Your task to perform on an android device: What's on the menu at Pizza Hut? Image 0: 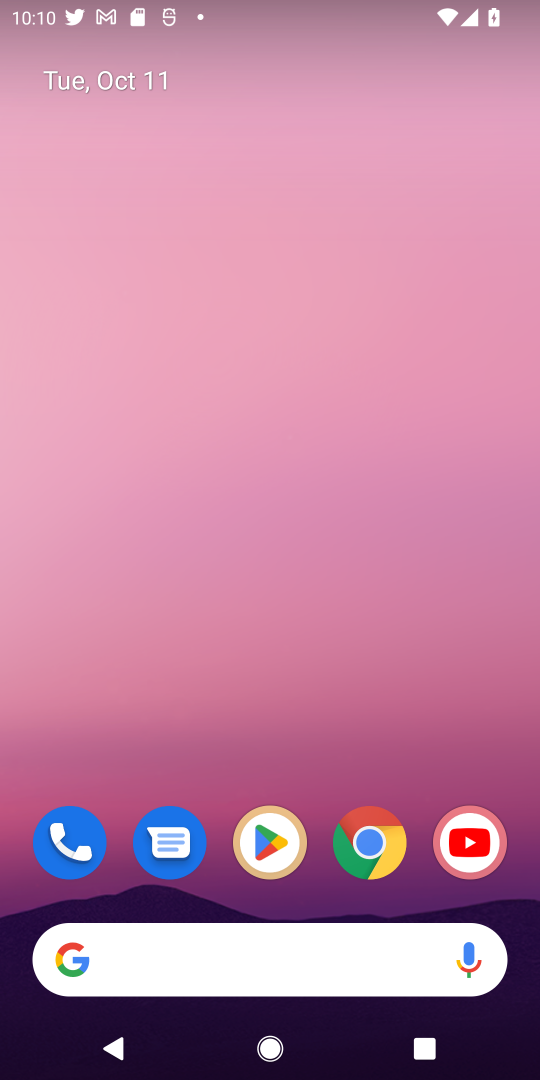
Step 0: click (381, 831)
Your task to perform on an android device: What's on the menu at Pizza Hut? Image 1: 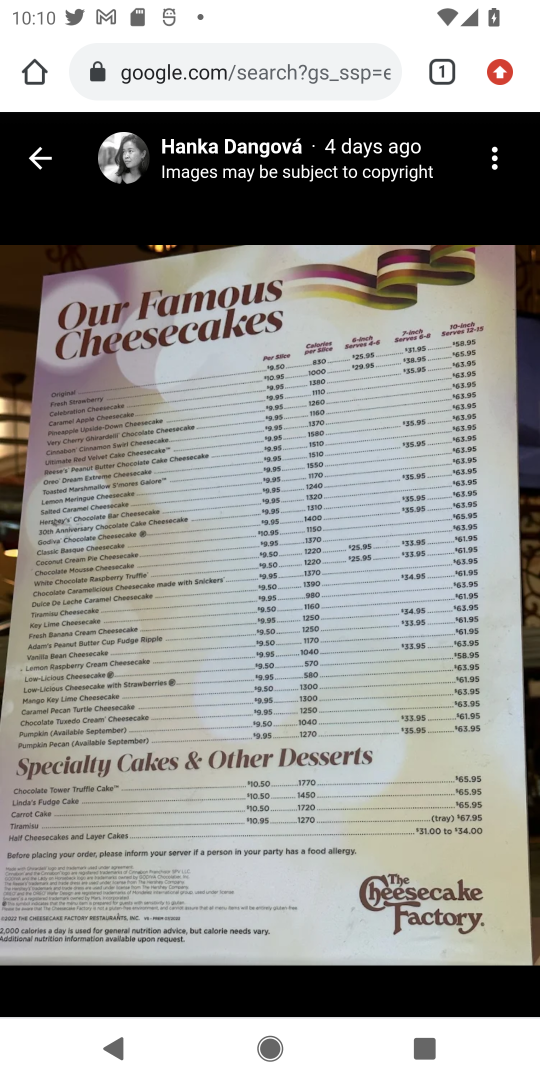
Step 1: click (255, 57)
Your task to perform on an android device: What's on the menu at Pizza Hut? Image 2: 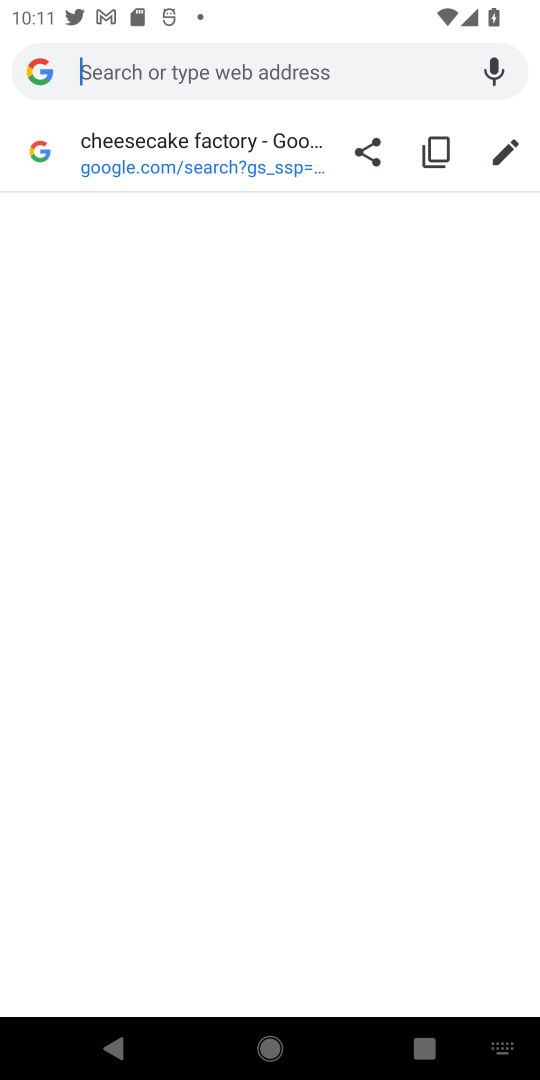
Step 2: type "pizza hut"
Your task to perform on an android device: What's on the menu at Pizza Hut? Image 3: 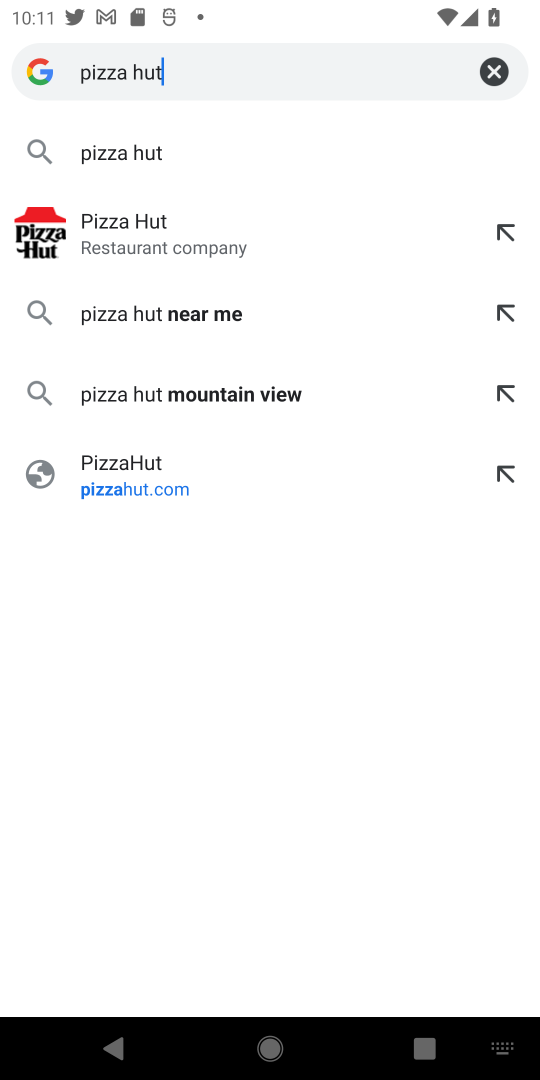
Step 3: click (111, 245)
Your task to perform on an android device: What's on the menu at Pizza Hut? Image 4: 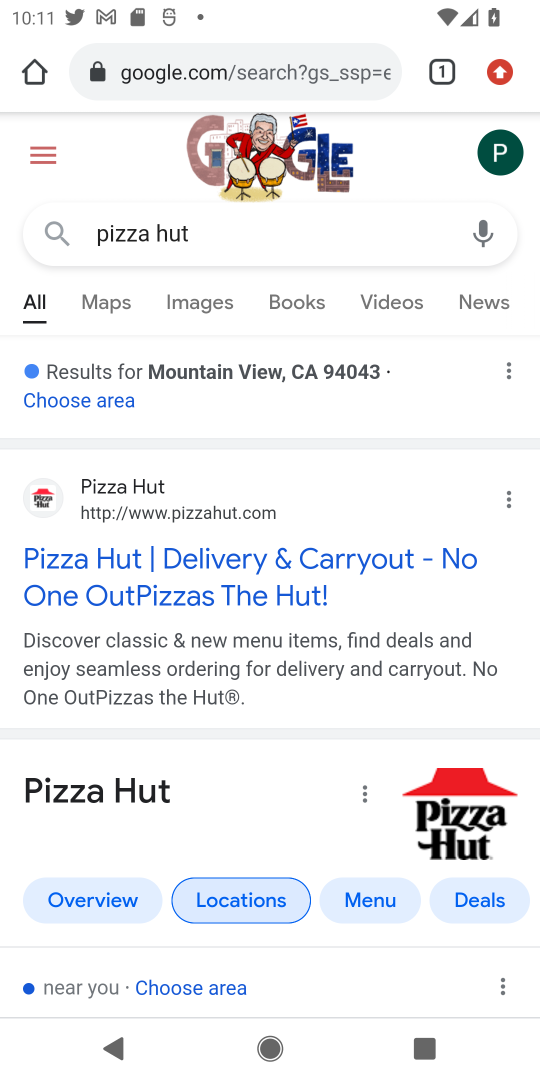
Step 4: click (71, 786)
Your task to perform on an android device: What's on the menu at Pizza Hut? Image 5: 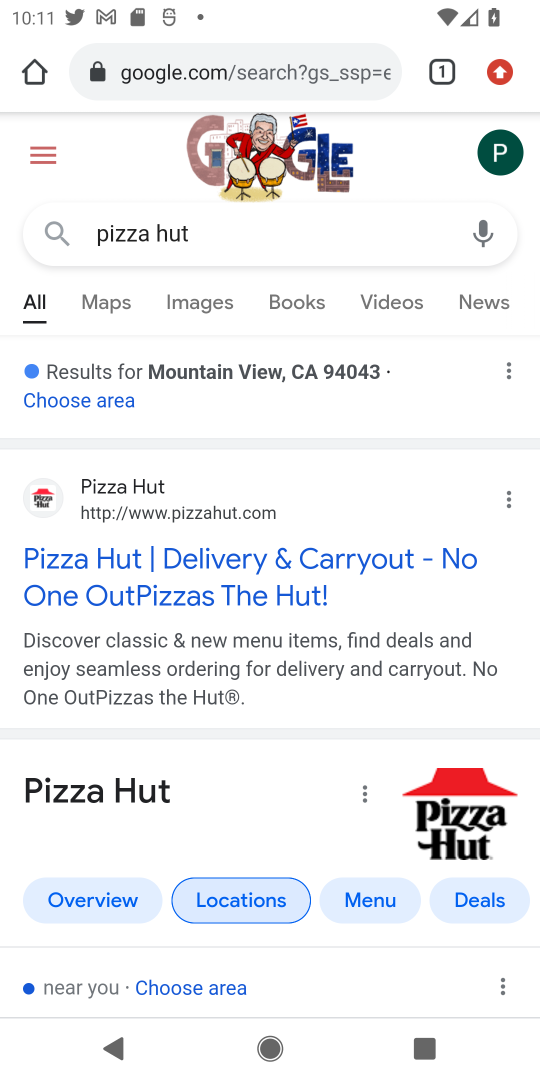
Step 5: drag from (222, 688) to (325, 324)
Your task to perform on an android device: What's on the menu at Pizza Hut? Image 6: 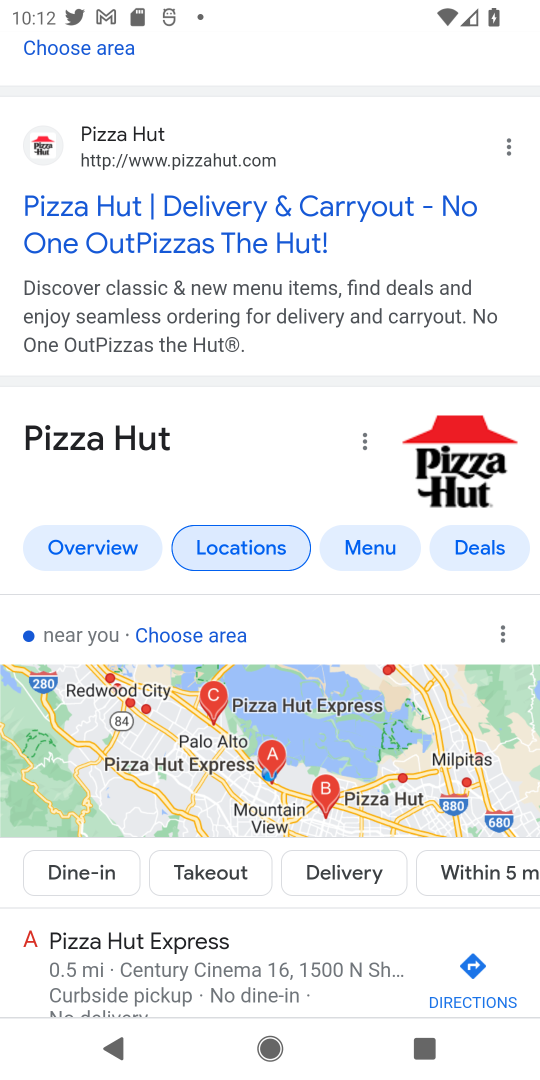
Step 6: click (360, 551)
Your task to perform on an android device: What's on the menu at Pizza Hut? Image 7: 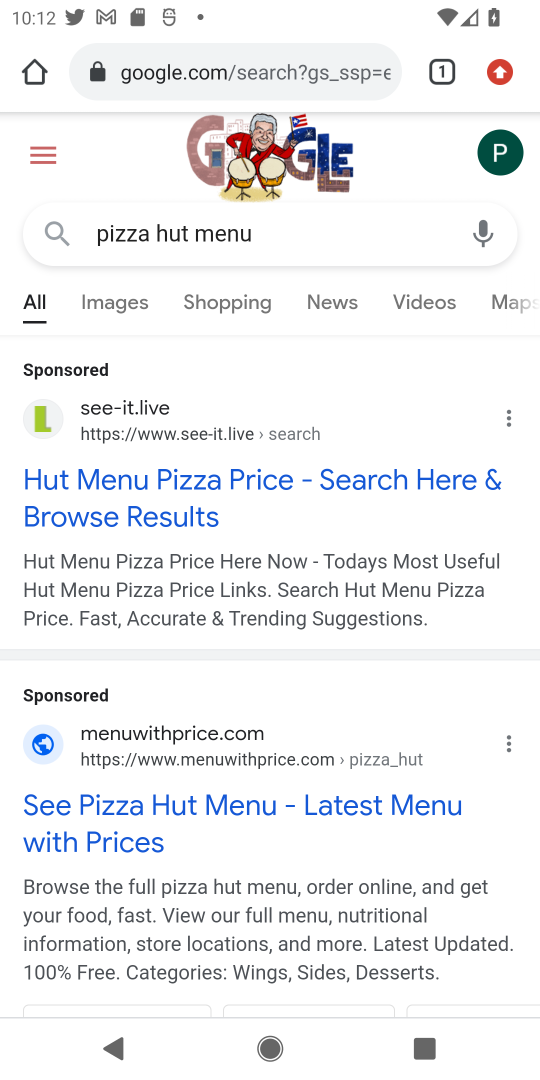
Step 7: drag from (197, 764) to (337, 271)
Your task to perform on an android device: What's on the menu at Pizza Hut? Image 8: 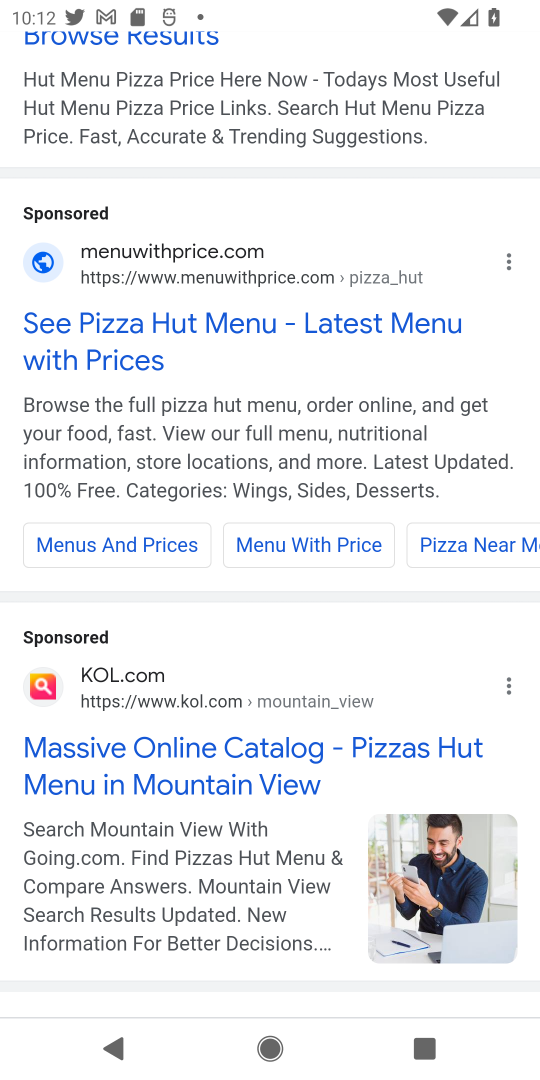
Step 8: drag from (92, 854) to (252, 255)
Your task to perform on an android device: What's on the menu at Pizza Hut? Image 9: 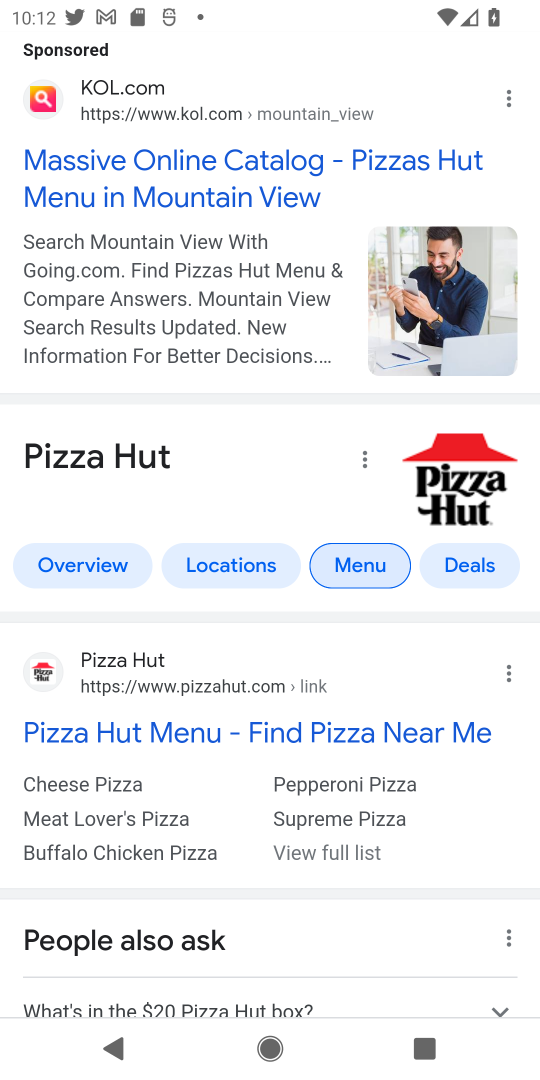
Step 9: click (120, 738)
Your task to perform on an android device: What's on the menu at Pizza Hut? Image 10: 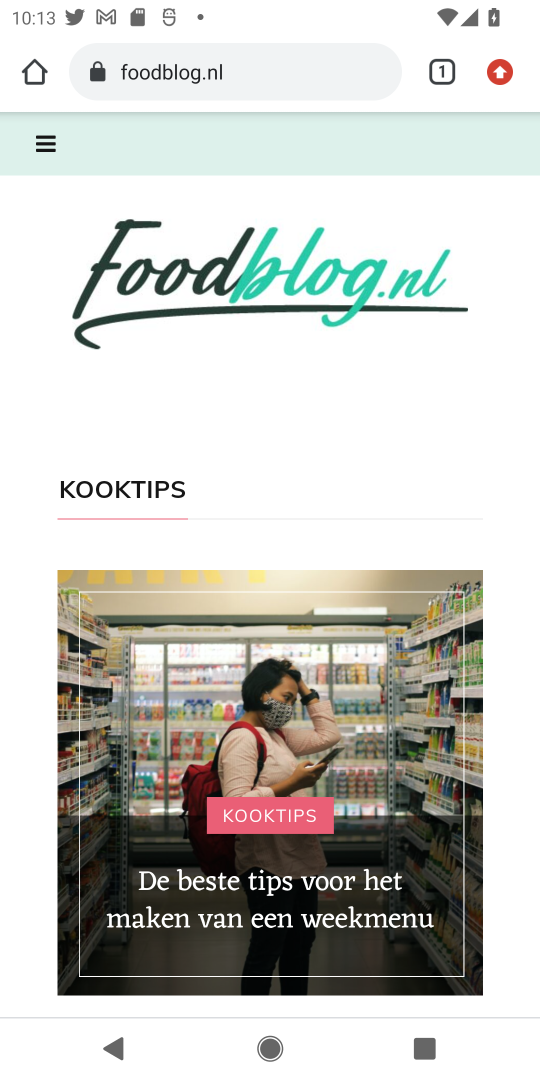
Step 10: type "pizza hut"
Your task to perform on an android device: What's on the menu at Pizza Hut? Image 11: 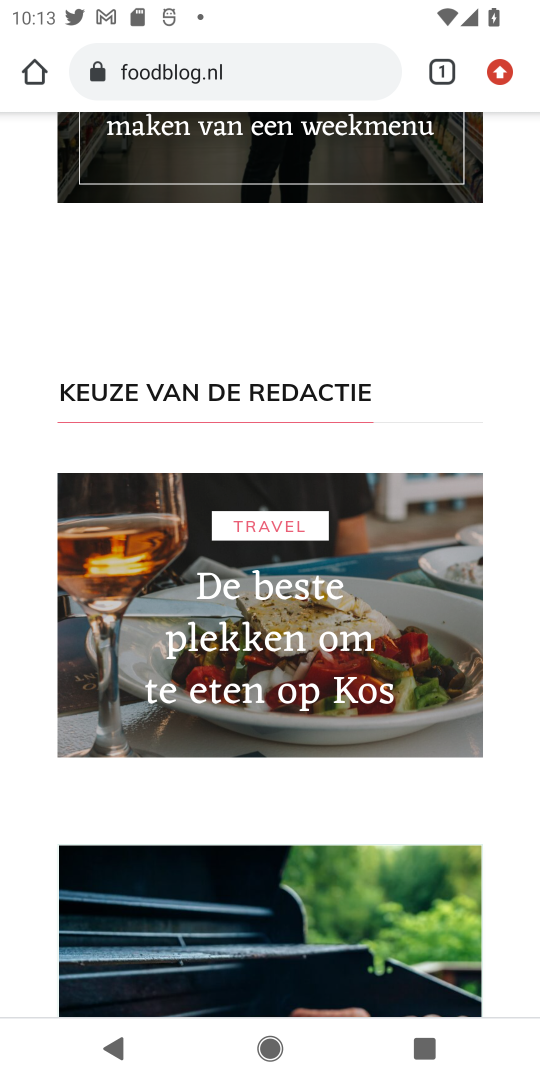
Step 11: type ""
Your task to perform on an android device: What's on the menu at Pizza Hut? Image 12: 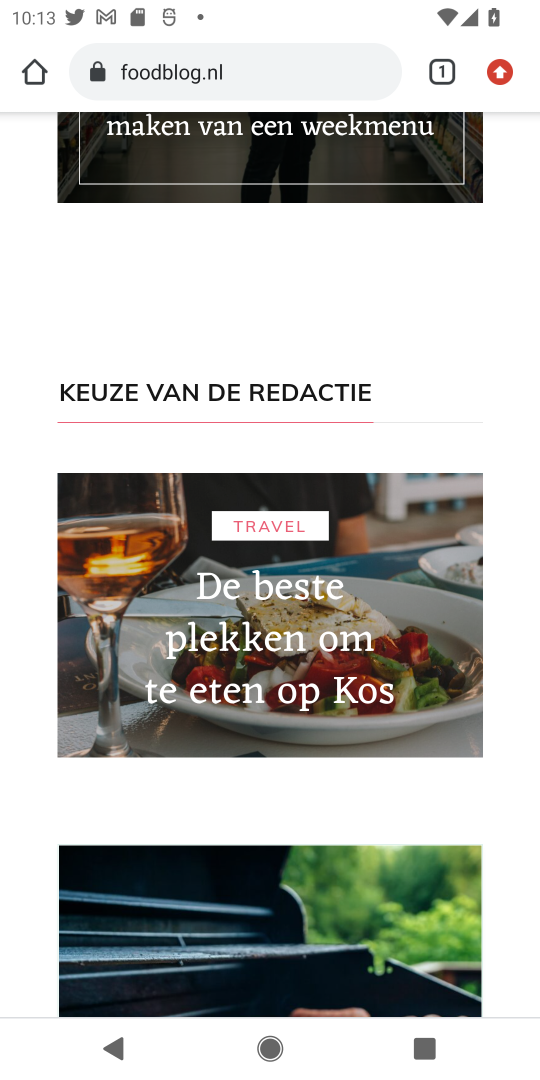
Step 12: click (243, 59)
Your task to perform on an android device: What's on the menu at Pizza Hut? Image 13: 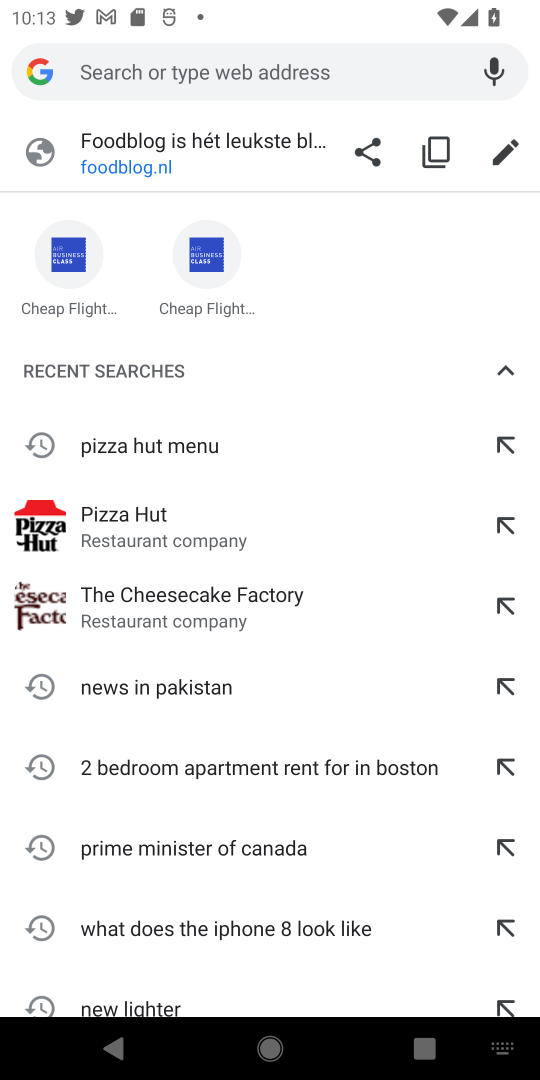
Step 13: click (106, 510)
Your task to perform on an android device: What's on the menu at Pizza Hut? Image 14: 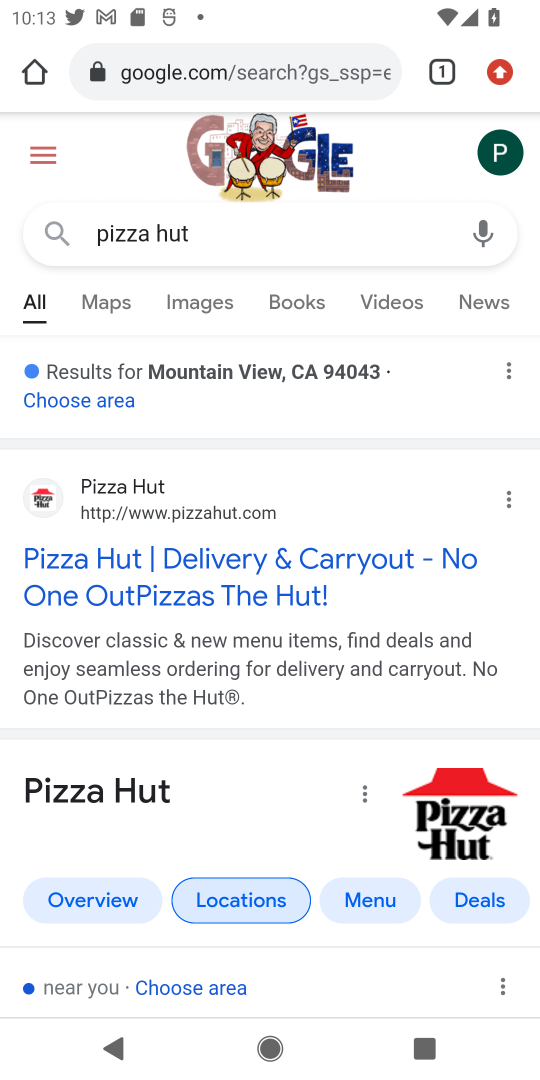
Step 14: click (371, 905)
Your task to perform on an android device: What's on the menu at Pizza Hut? Image 15: 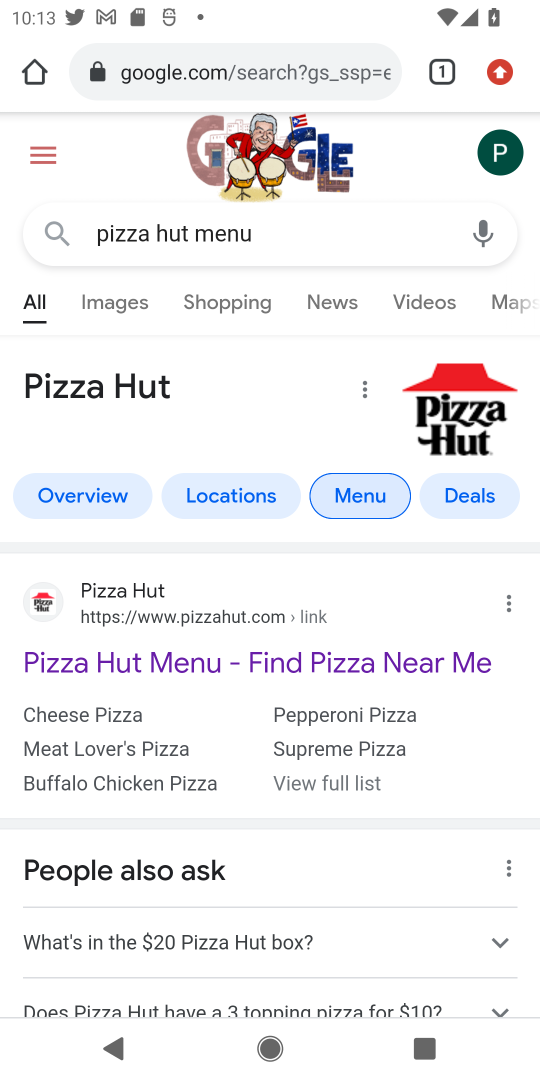
Step 15: click (166, 664)
Your task to perform on an android device: What's on the menu at Pizza Hut? Image 16: 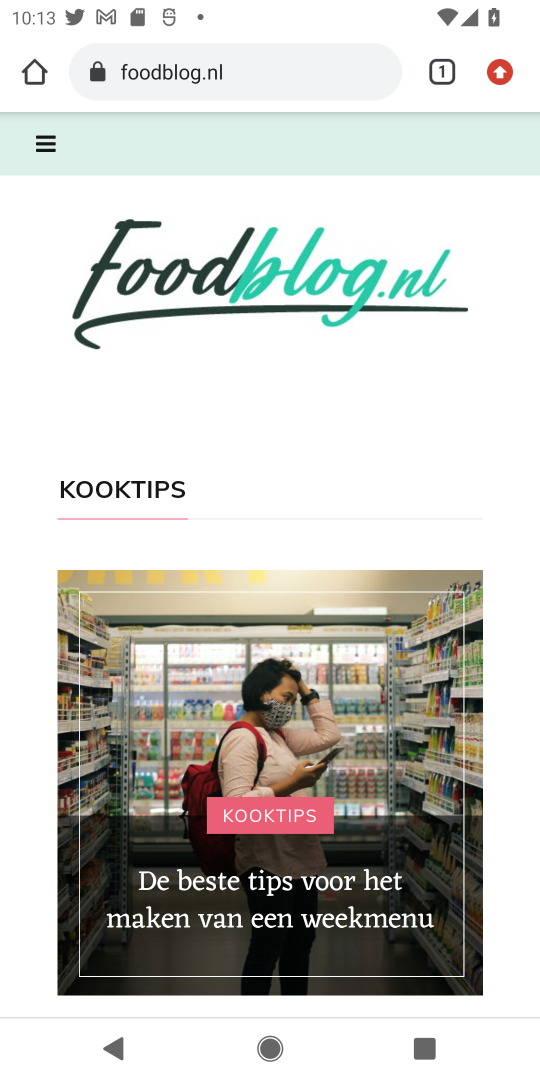
Step 16: drag from (389, 644) to (531, 153)
Your task to perform on an android device: What's on the menu at Pizza Hut? Image 17: 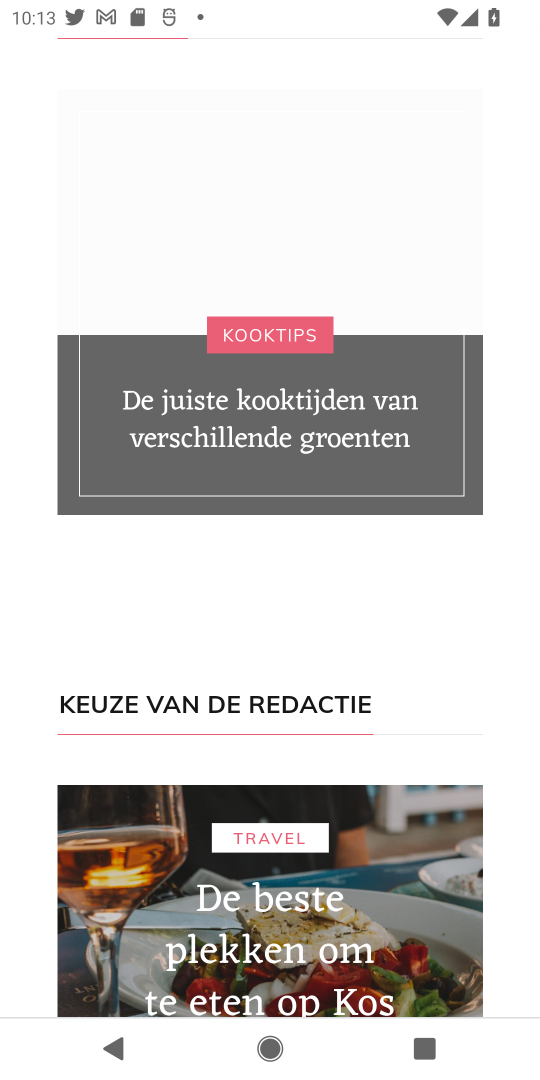
Step 17: drag from (226, 693) to (251, 369)
Your task to perform on an android device: What's on the menu at Pizza Hut? Image 18: 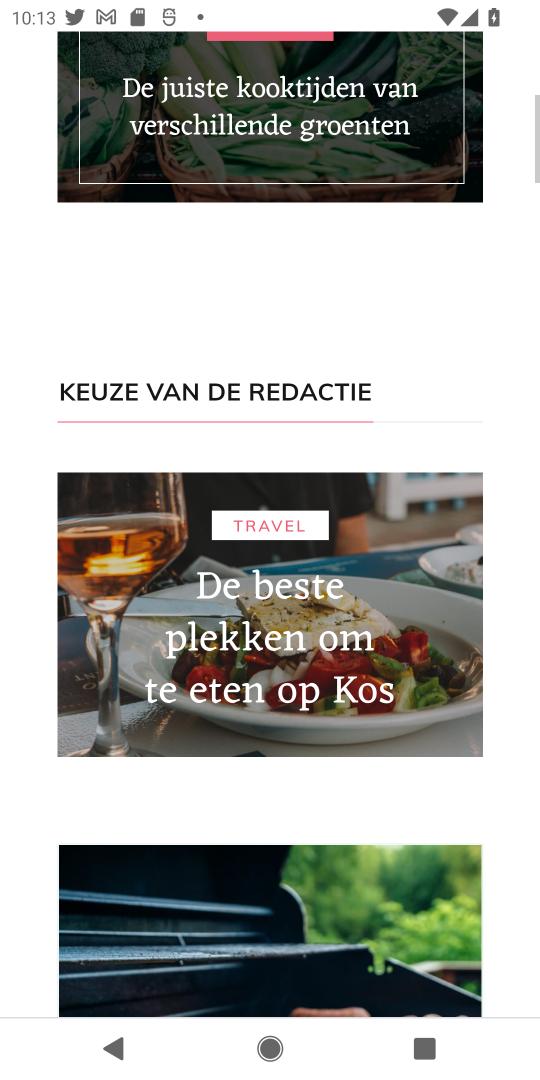
Step 18: drag from (99, 772) to (148, 435)
Your task to perform on an android device: What's on the menu at Pizza Hut? Image 19: 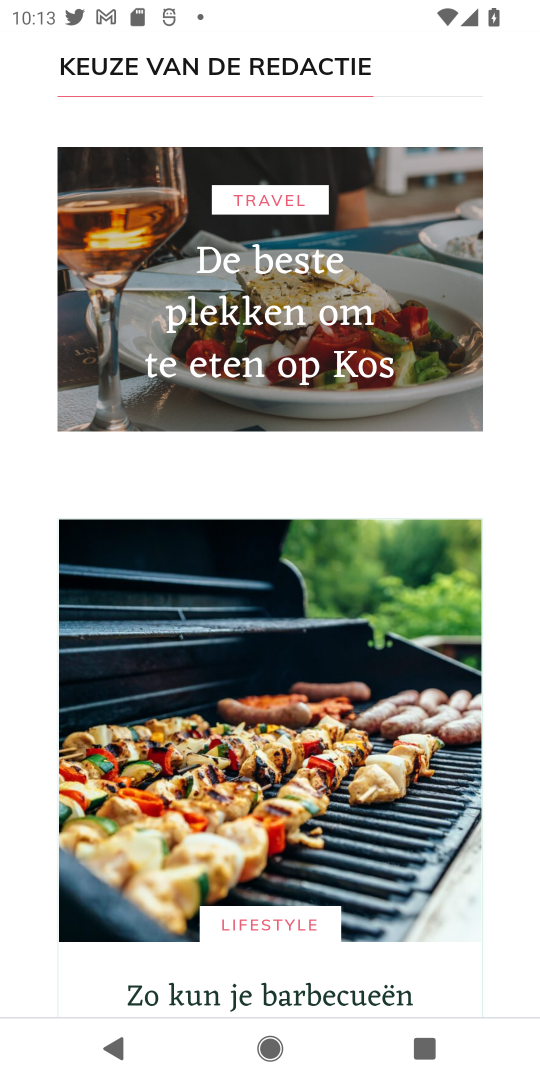
Step 19: drag from (152, 772) to (175, 297)
Your task to perform on an android device: What's on the menu at Pizza Hut? Image 20: 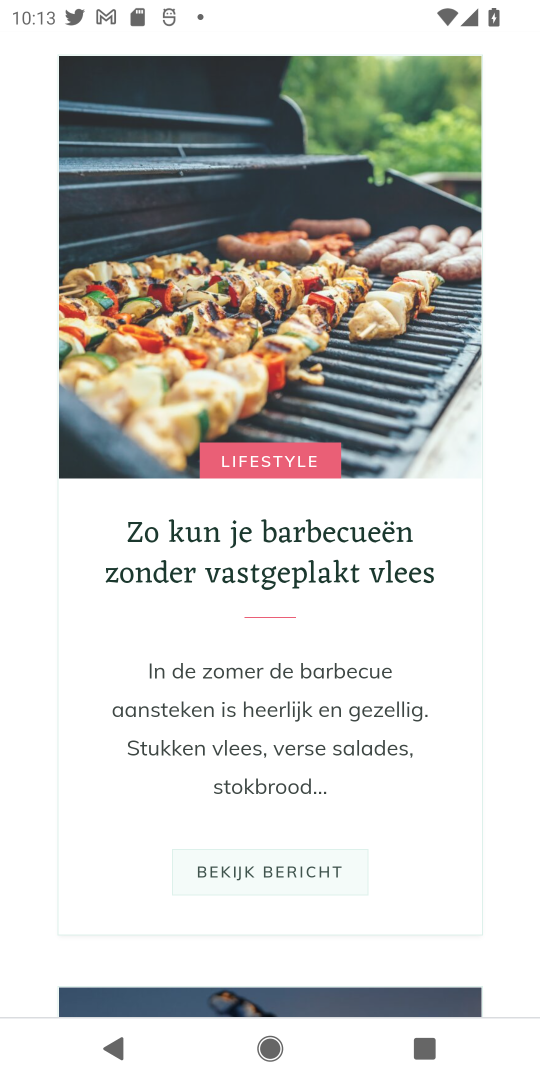
Step 20: drag from (214, 514) to (301, 145)
Your task to perform on an android device: What's on the menu at Pizza Hut? Image 21: 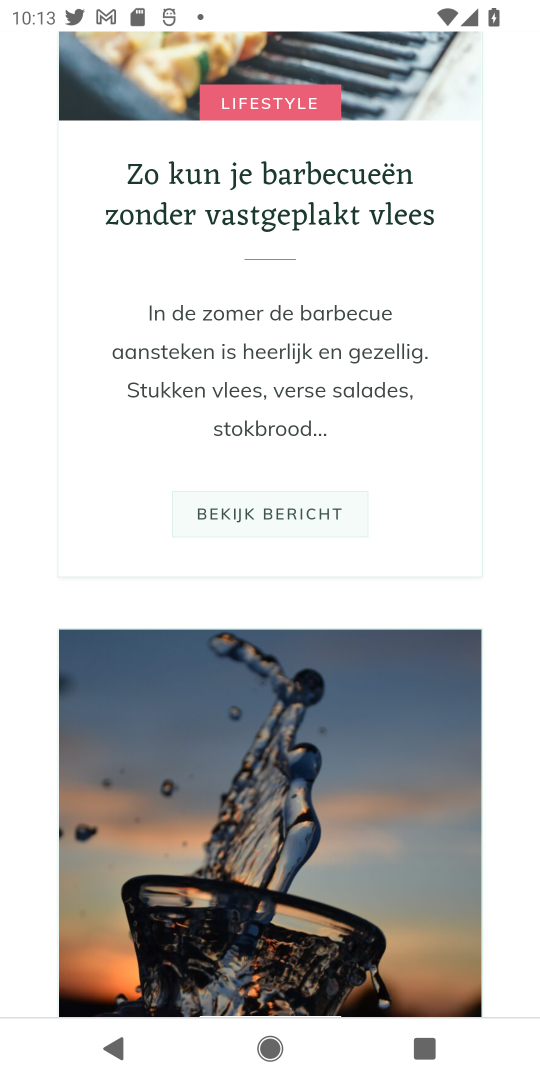
Step 21: drag from (273, 430) to (372, 120)
Your task to perform on an android device: What's on the menu at Pizza Hut? Image 22: 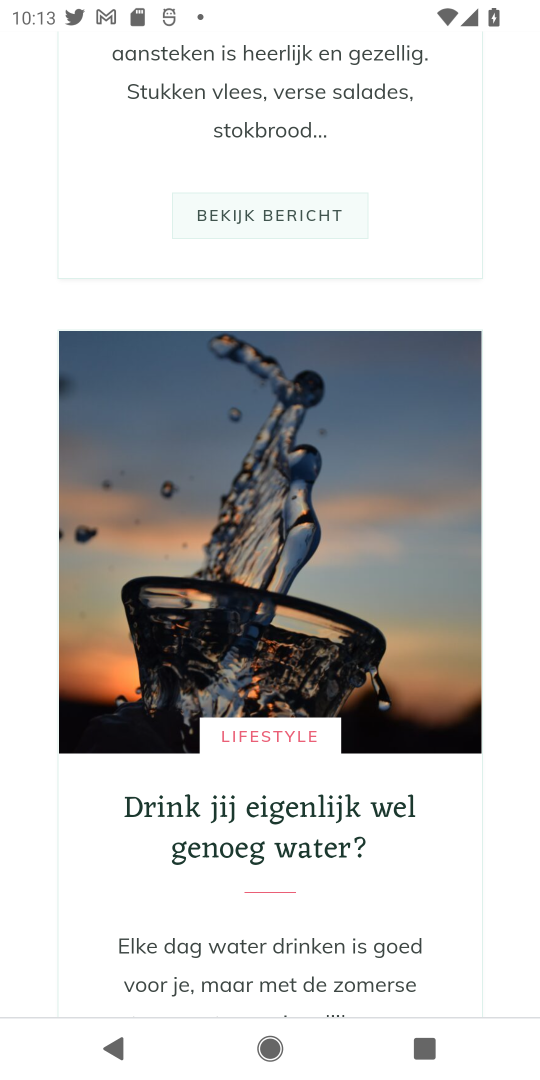
Step 22: drag from (300, 263) to (276, 931)
Your task to perform on an android device: What's on the menu at Pizza Hut? Image 23: 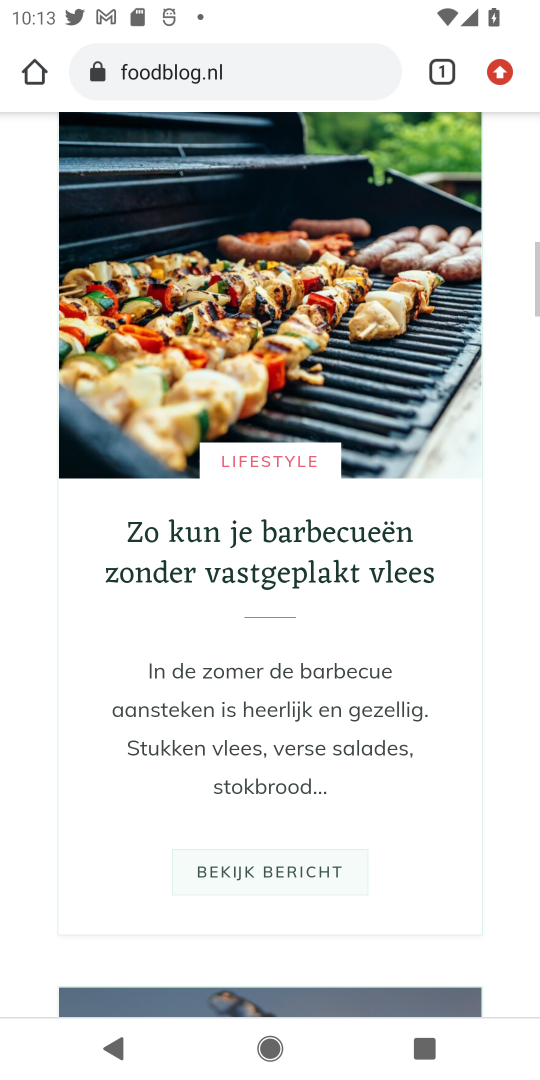
Step 23: drag from (364, 250) to (189, 892)
Your task to perform on an android device: What's on the menu at Pizza Hut? Image 24: 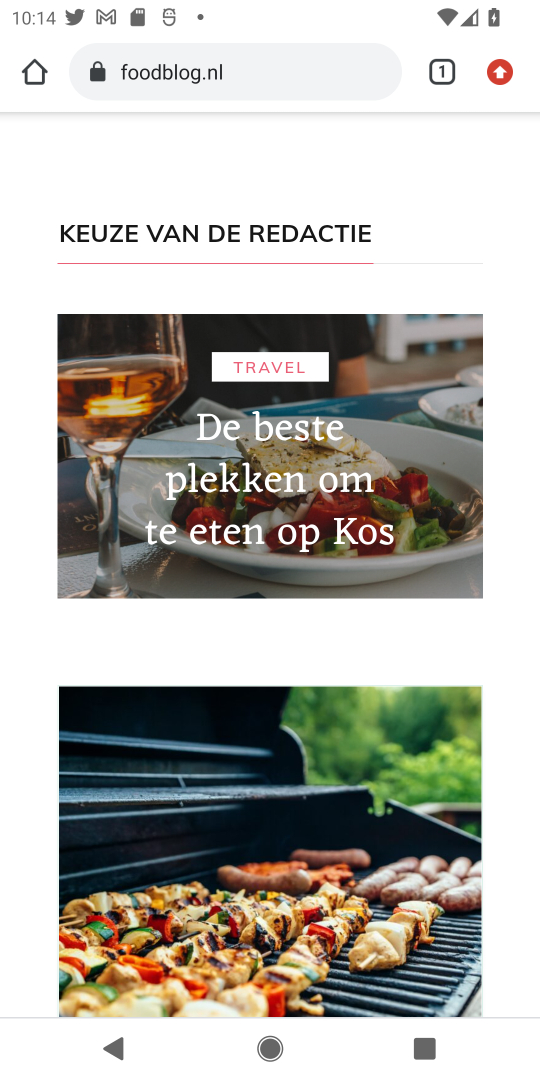
Step 24: drag from (462, 829) to (538, 298)
Your task to perform on an android device: What's on the menu at Pizza Hut? Image 25: 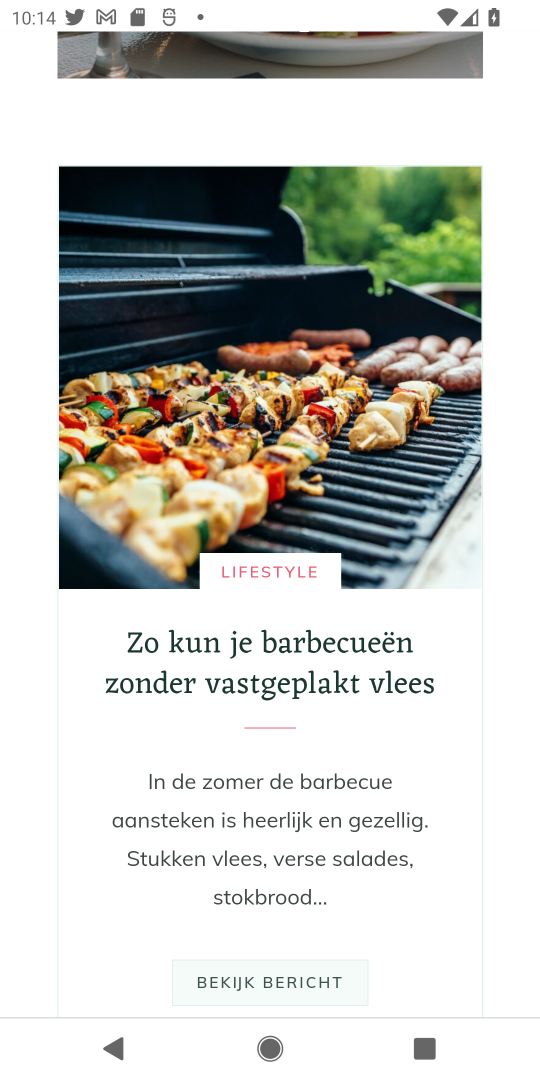
Step 25: drag from (290, 482) to (291, 1067)
Your task to perform on an android device: What's on the menu at Pizza Hut? Image 26: 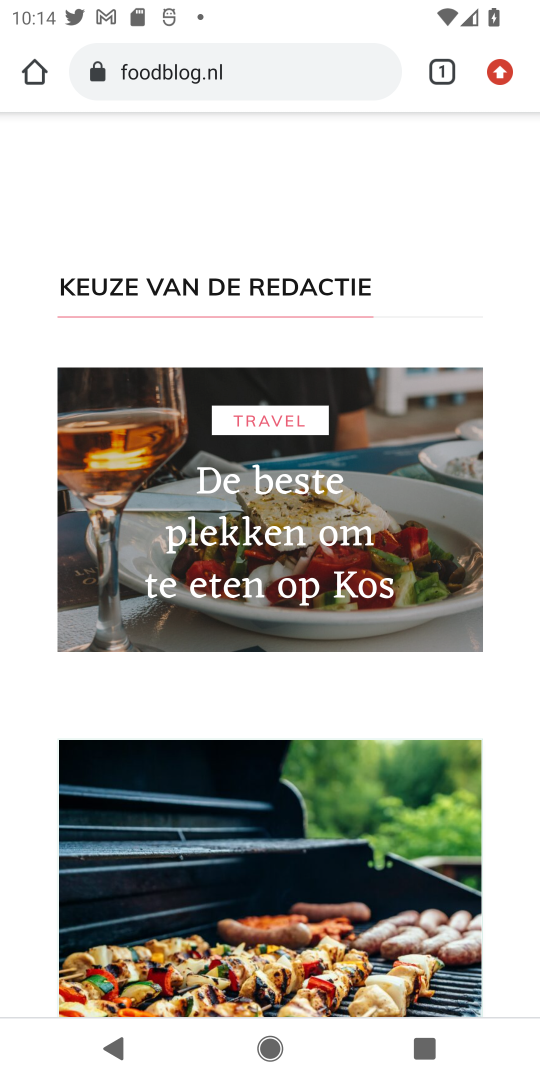
Step 26: click (258, 66)
Your task to perform on an android device: What's on the menu at Pizza Hut? Image 27: 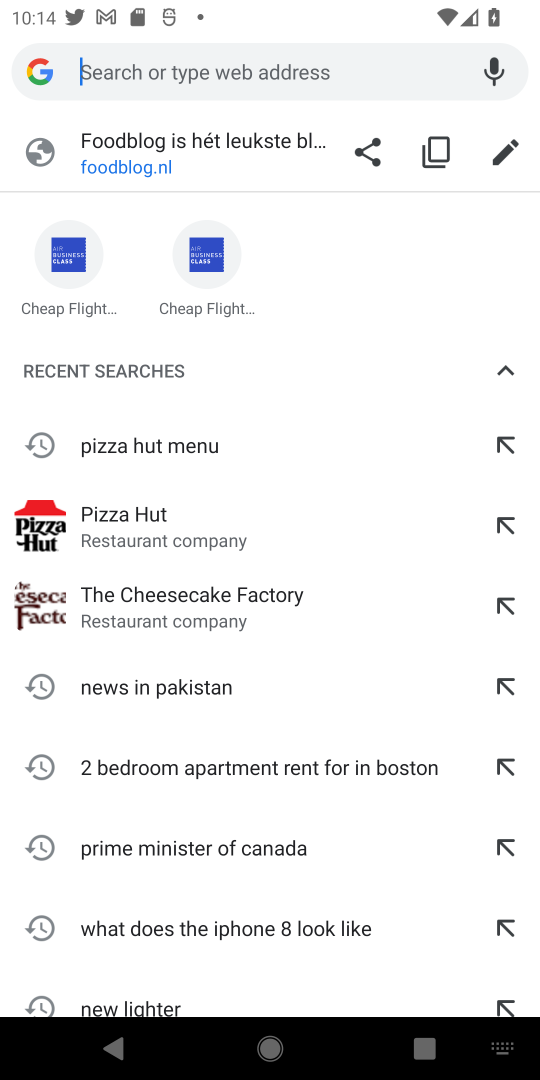
Step 27: click (108, 445)
Your task to perform on an android device: What's on the menu at Pizza Hut? Image 28: 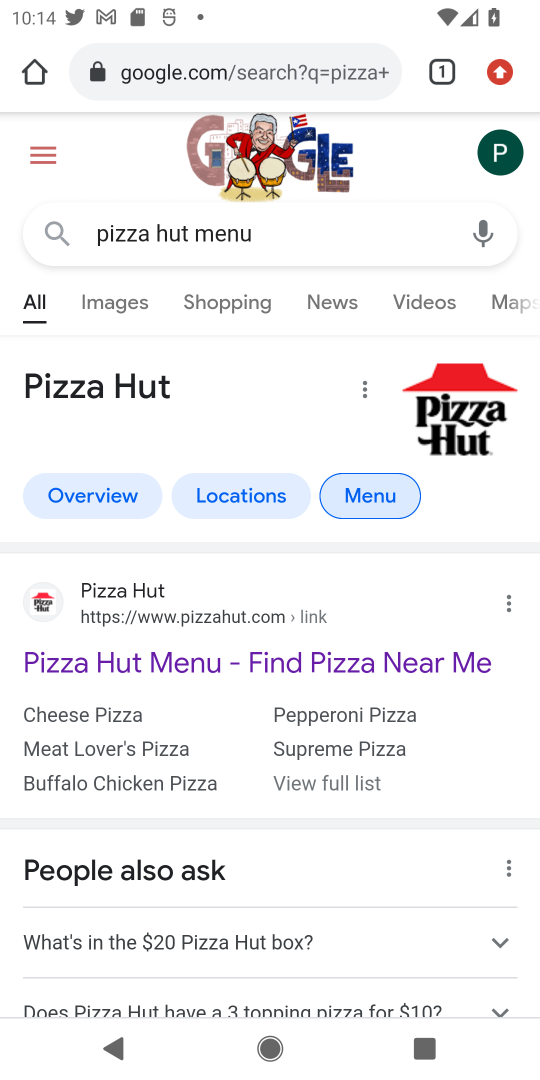
Step 28: click (111, 662)
Your task to perform on an android device: What's on the menu at Pizza Hut? Image 29: 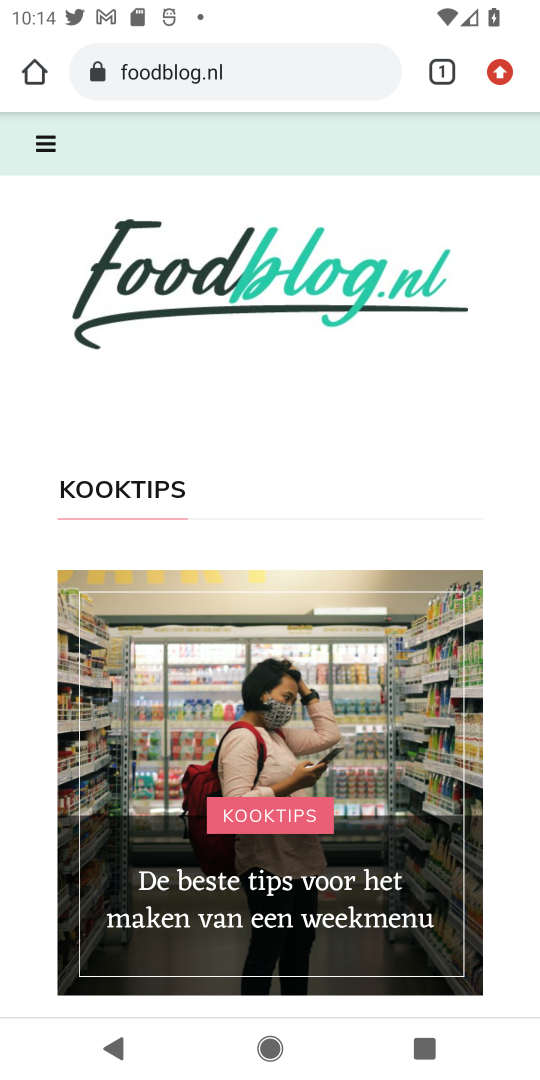
Step 29: drag from (240, 490) to (273, 373)
Your task to perform on an android device: What's on the menu at Pizza Hut? Image 30: 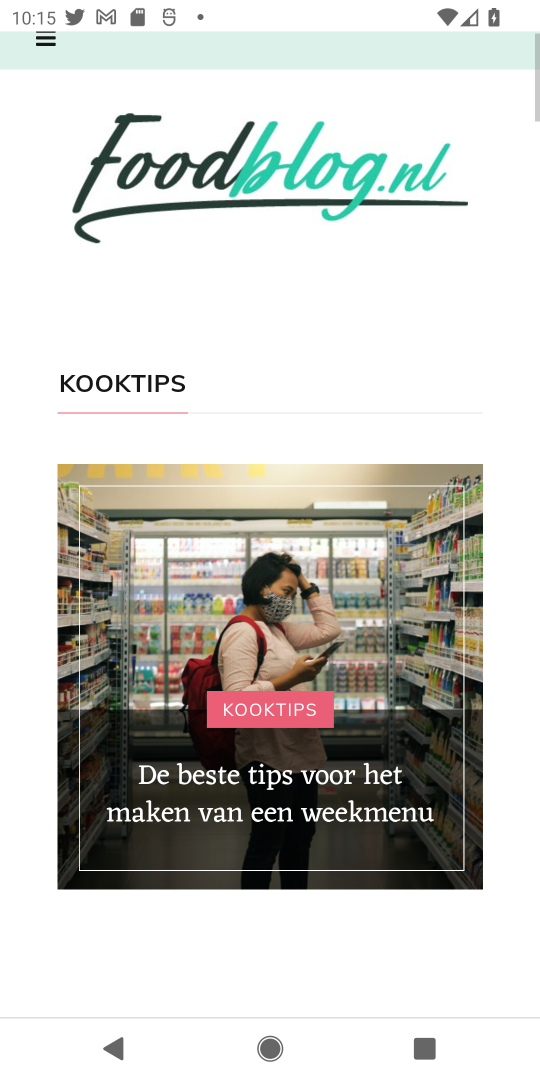
Step 30: drag from (214, 704) to (271, 392)
Your task to perform on an android device: What's on the menu at Pizza Hut? Image 31: 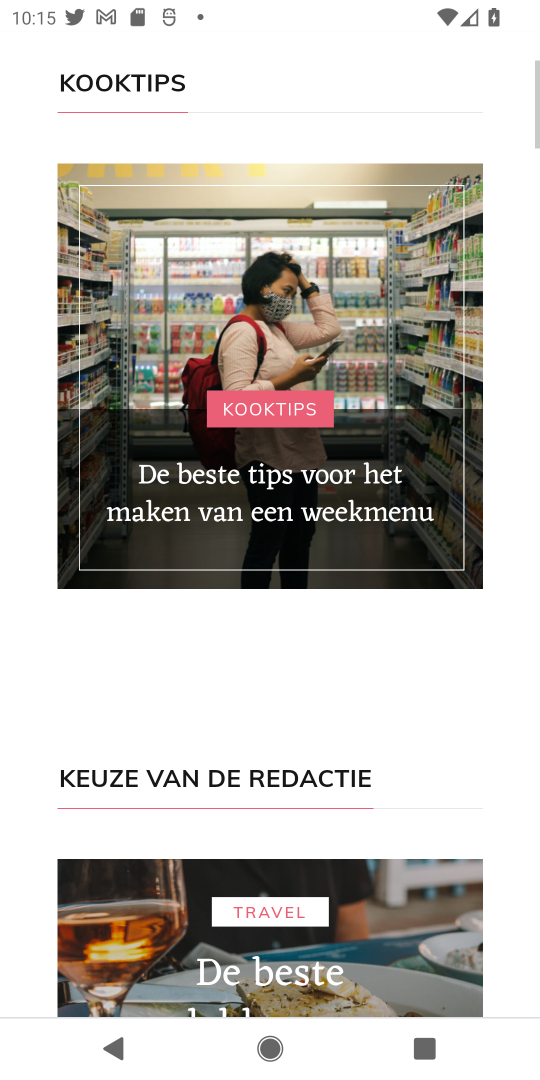
Step 31: drag from (258, 685) to (351, 398)
Your task to perform on an android device: What's on the menu at Pizza Hut? Image 32: 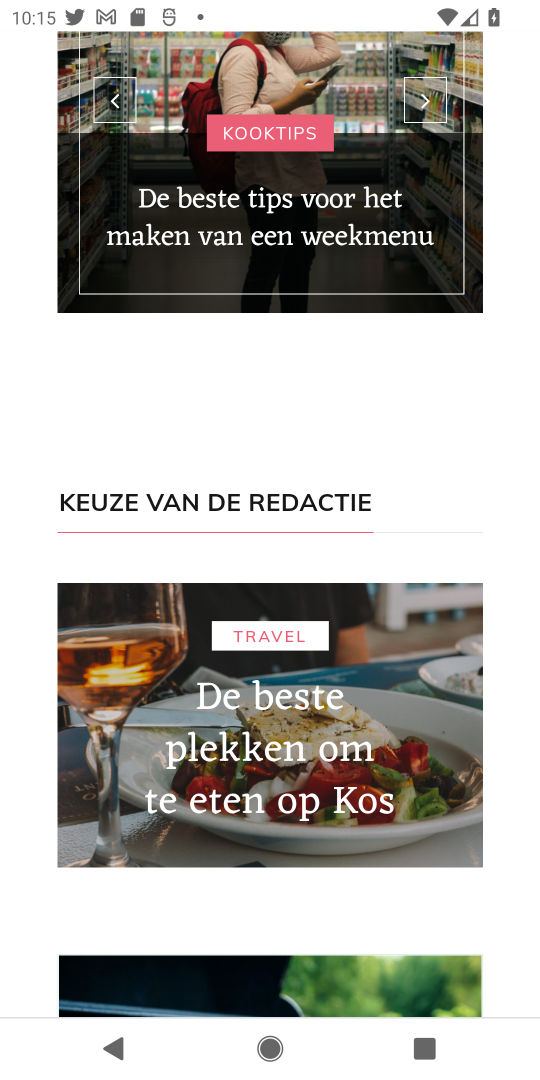
Step 32: click (314, 515)
Your task to perform on an android device: What's on the menu at Pizza Hut? Image 33: 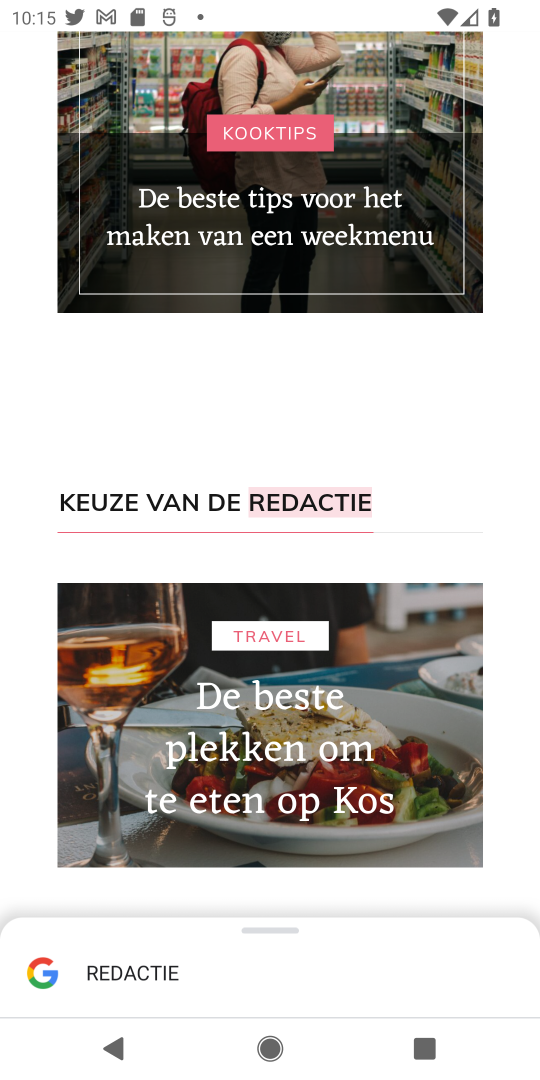
Step 33: task complete